Your task to perform on an android device: Open Maps and search for coffee Image 0: 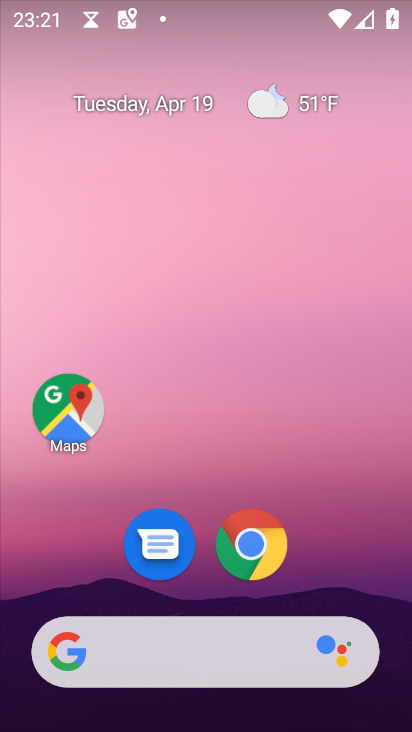
Step 0: drag from (362, 594) to (359, 88)
Your task to perform on an android device: Open Maps and search for coffee Image 1: 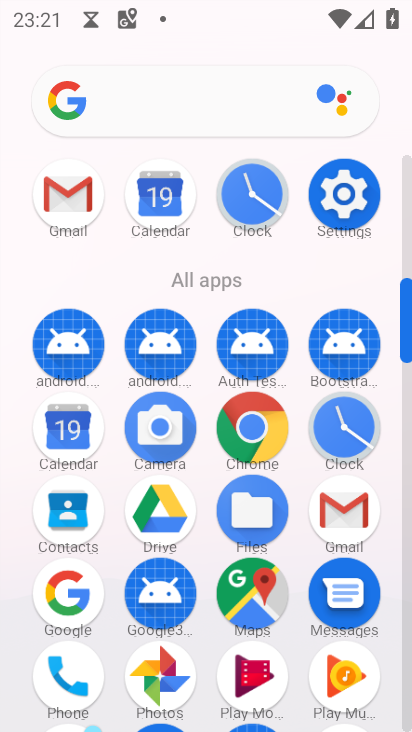
Step 1: click (241, 601)
Your task to perform on an android device: Open Maps and search for coffee Image 2: 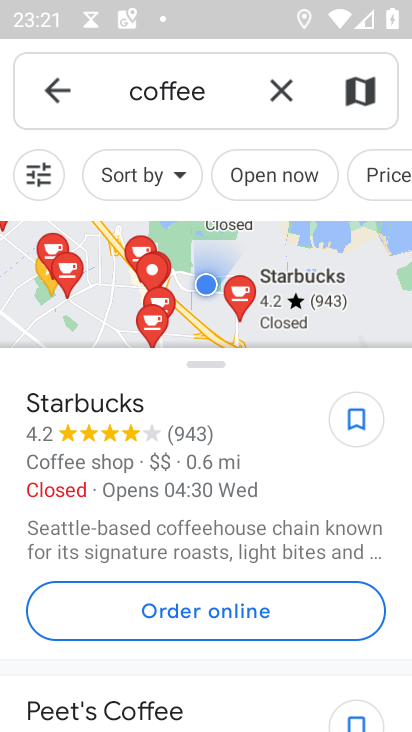
Step 2: task complete